Your task to perform on an android device: Open CNN.com Image 0: 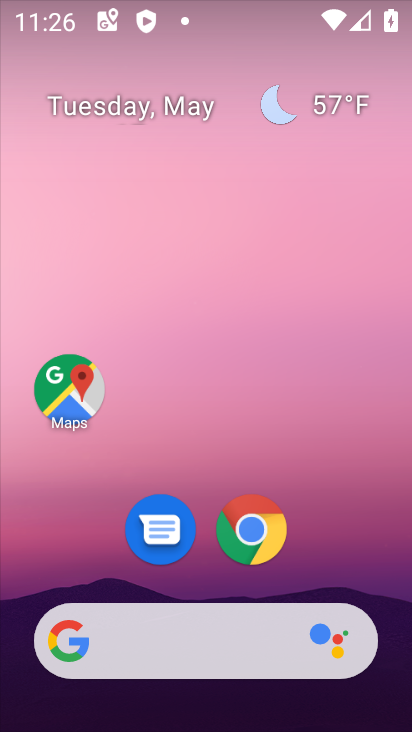
Step 0: click (139, 652)
Your task to perform on an android device: Open CNN.com Image 1: 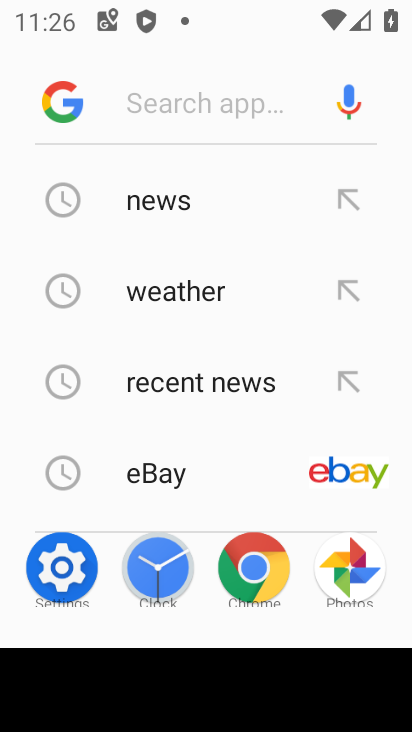
Step 1: type "cnn.com"
Your task to perform on an android device: Open CNN.com Image 2: 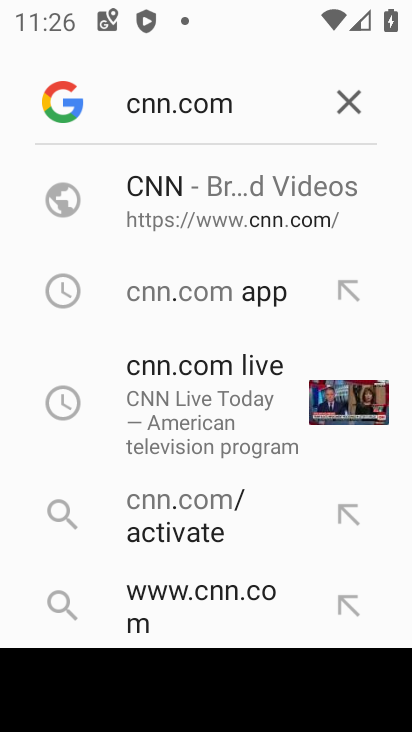
Step 2: click (265, 219)
Your task to perform on an android device: Open CNN.com Image 3: 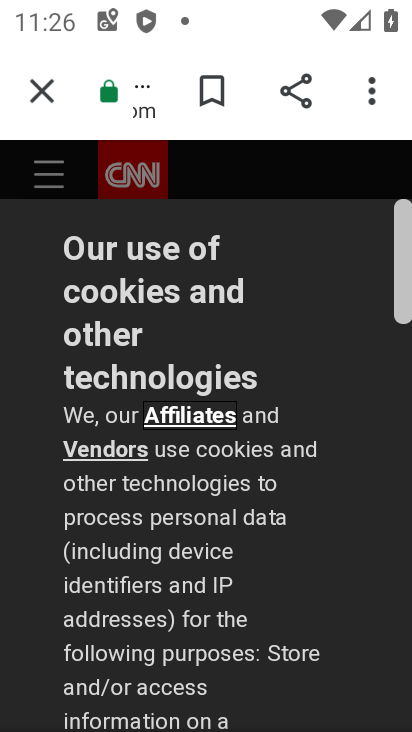
Step 3: task complete